Your task to perform on an android device: Open eBay Image 0: 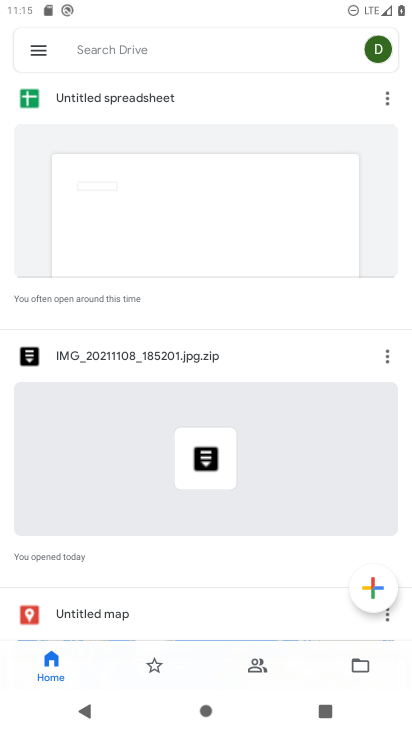
Step 0: press home button
Your task to perform on an android device: Open eBay Image 1: 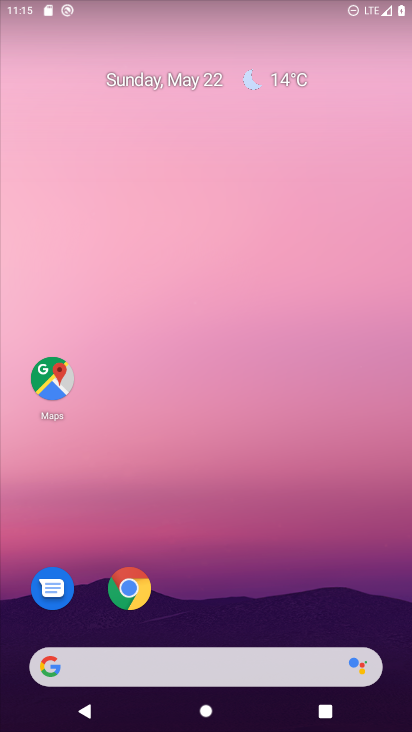
Step 1: click (139, 585)
Your task to perform on an android device: Open eBay Image 2: 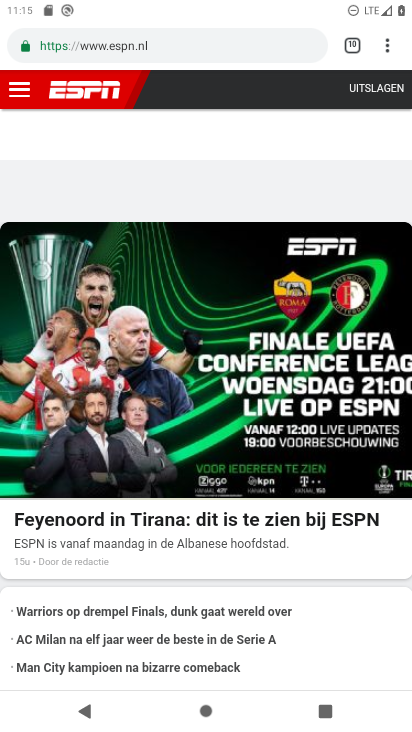
Step 2: click (356, 49)
Your task to perform on an android device: Open eBay Image 3: 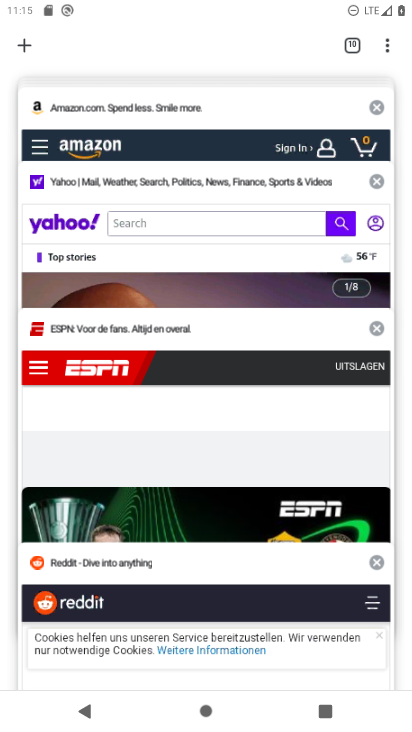
Step 3: click (18, 47)
Your task to perform on an android device: Open eBay Image 4: 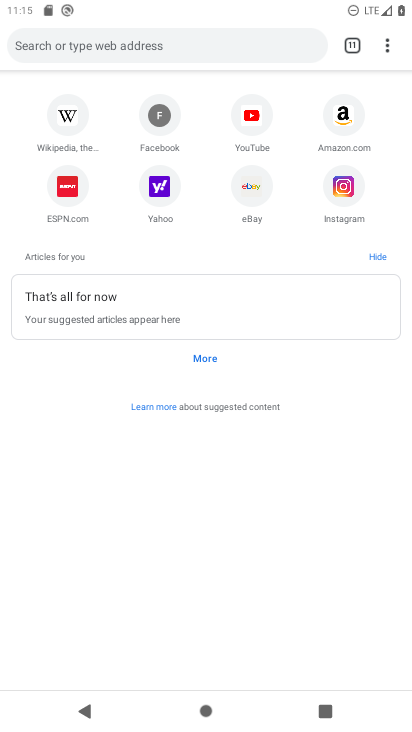
Step 4: click (147, 45)
Your task to perform on an android device: Open eBay Image 5: 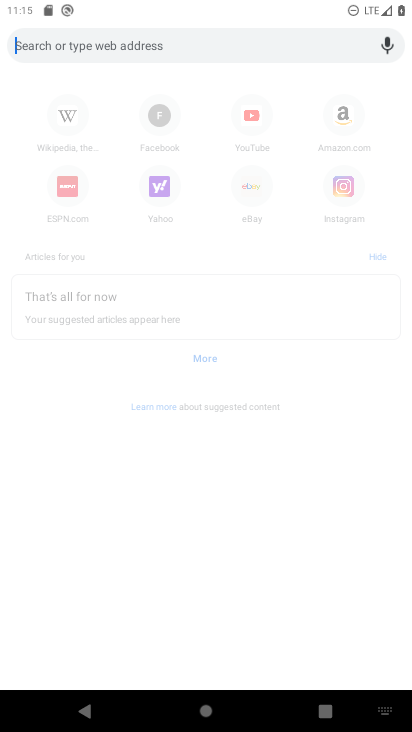
Step 5: click (248, 193)
Your task to perform on an android device: Open eBay Image 6: 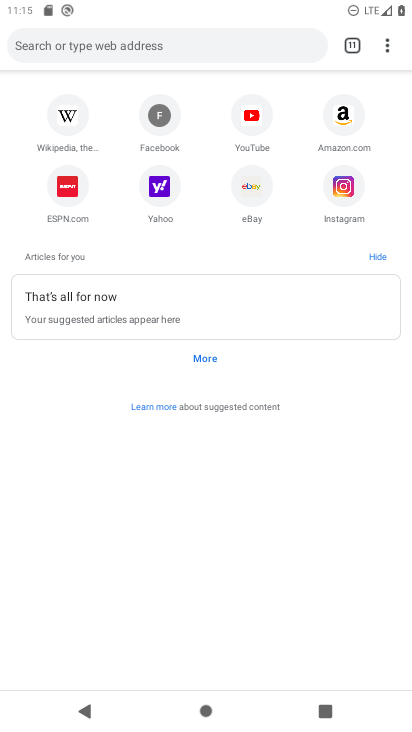
Step 6: click (248, 193)
Your task to perform on an android device: Open eBay Image 7: 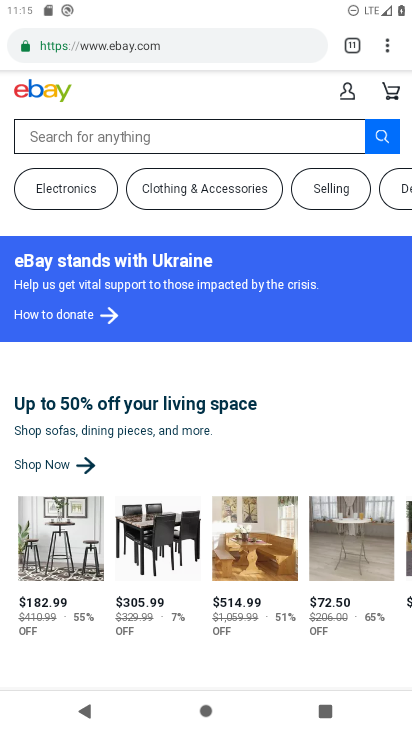
Step 7: task complete